Your task to perform on an android device: Go to Yahoo.com Image 0: 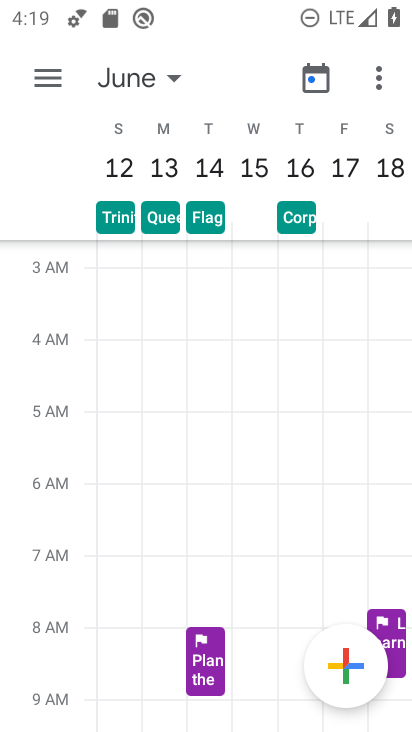
Step 0: press home button
Your task to perform on an android device: Go to Yahoo.com Image 1: 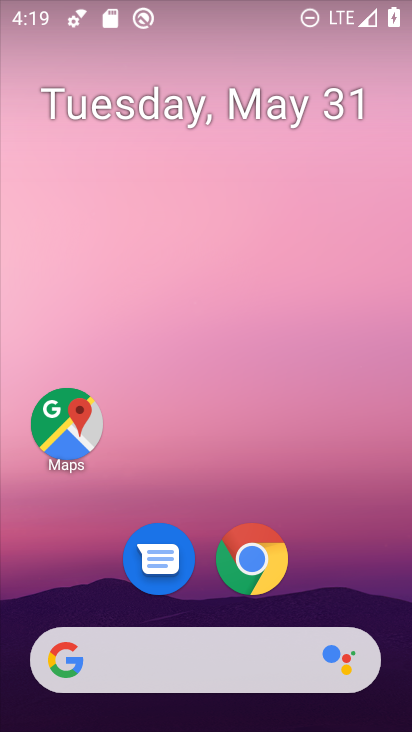
Step 1: click (254, 563)
Your task to perform on an android device: Go to Yahoo.com Image 2: 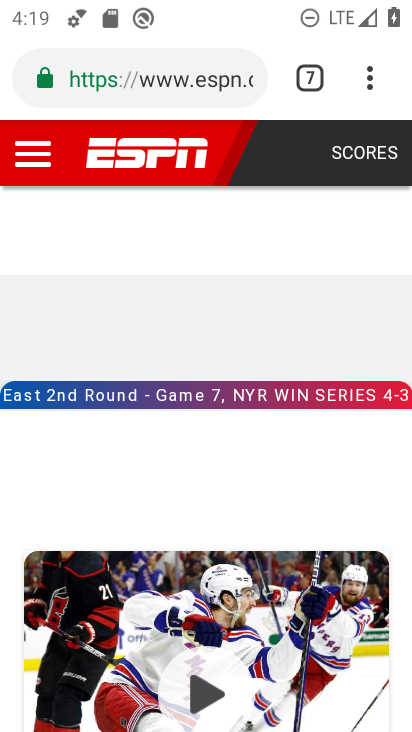
Step 2: click (368, 87)
Your task to perform on an android device: Go to Yahoo.com Image 3: 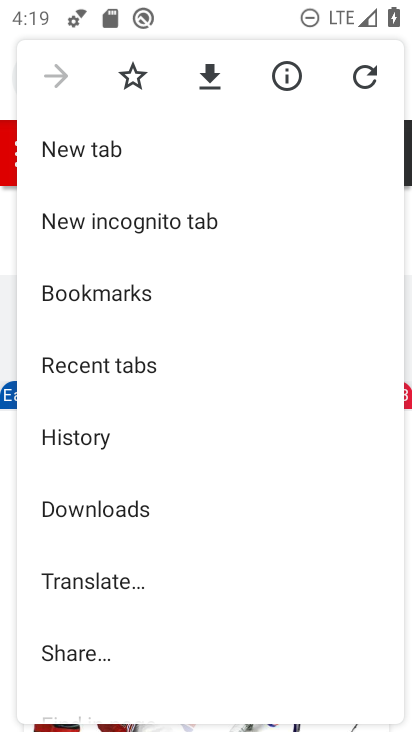
Step 3: click (78, 154)
Your task to perform on an android device: Go to Yahoo.com Image 4: 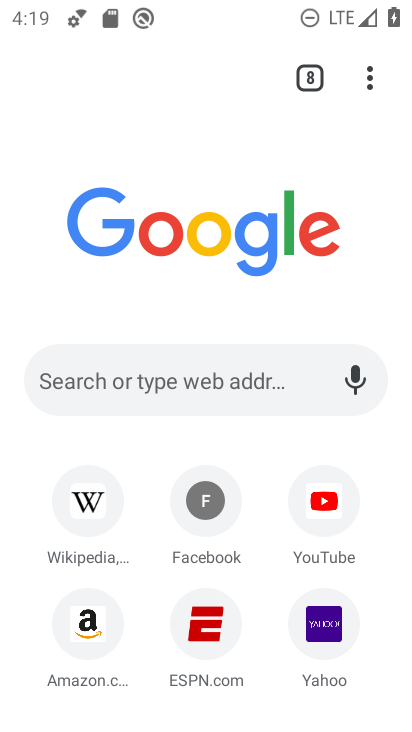
Step 4: click (330, 623)
Your task to perform on an android device: Go to Yahoo.com Image 5: 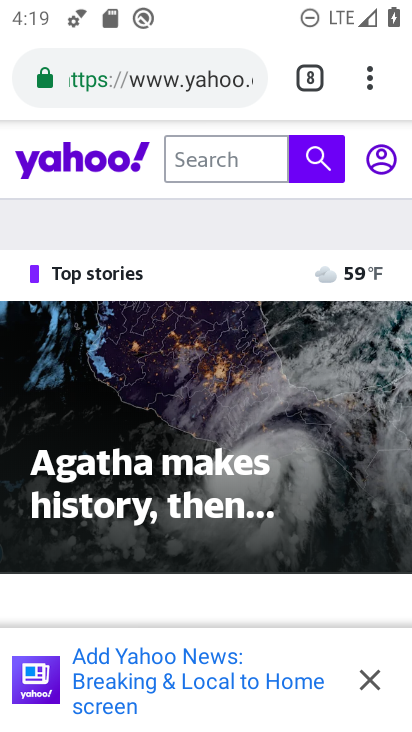
Step 5: task complete